Your task to perform on an android device: see tabs open on other devices in the chrome app Image 0: 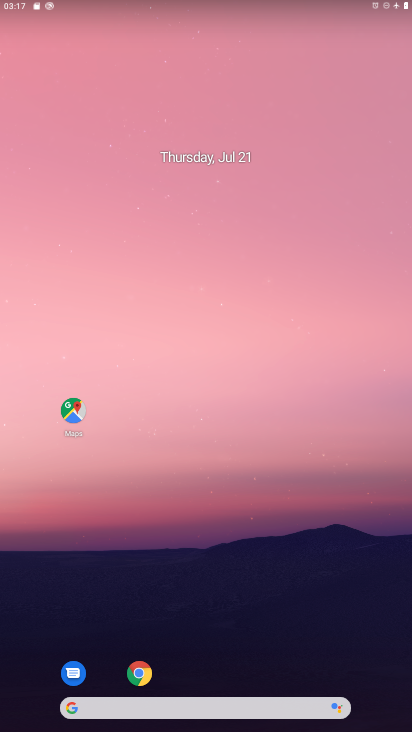
Step 0: drag from (228, 669) to (228, 335)
Your task to perform on an android device: see tabs open on other devices in the chrome app Image 1: 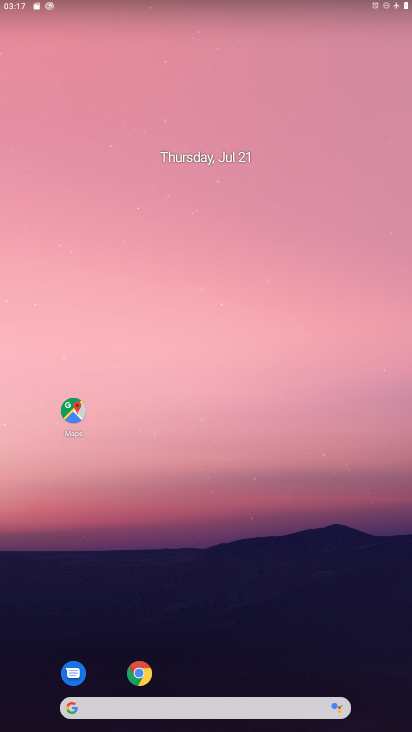
Step 1: drag from (249, 626) to (278, 203)
Your task to perform on an android device: see tabs open on other devices in the chrome app Image 2: 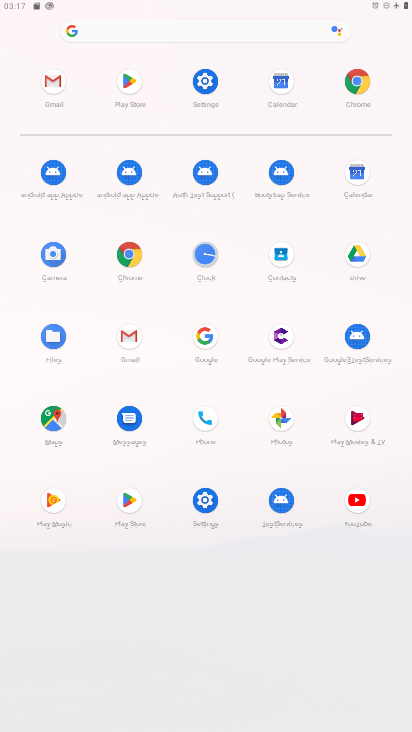
Step 2: click (125, 259)
Your task to perform on an android device: see tabs open on other devices in the chrome app Image 3: 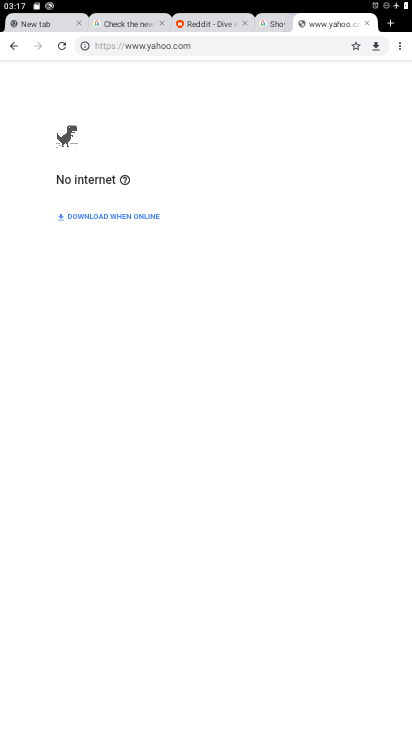
Step 3: click (405, 40)
Your task to perform on an android device: see tabs open on other devices in the chrome app Image 4: 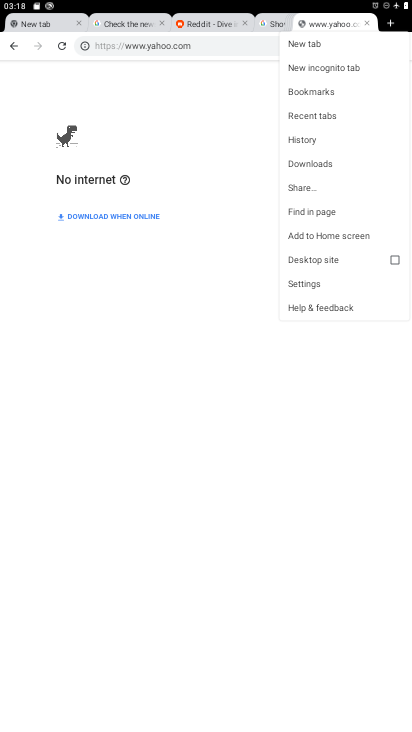
Step 4: click (321, 144)
Your task to perform on an android device: see tabs open on other devices in the chrome app Image 5: 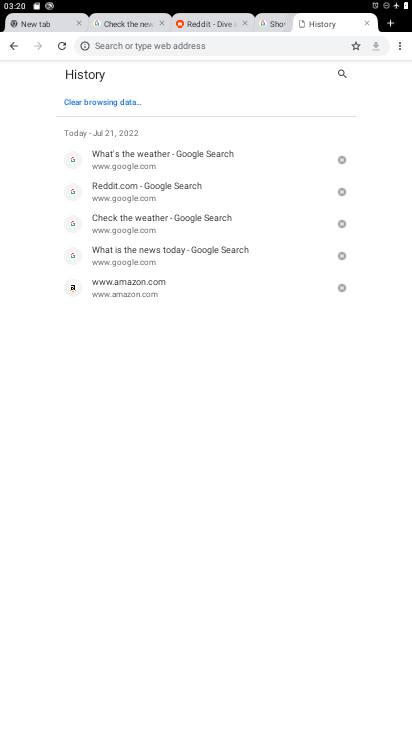
Step 5: task complete